Your task to perform on an android device: Turn off the flashlight Image 0: 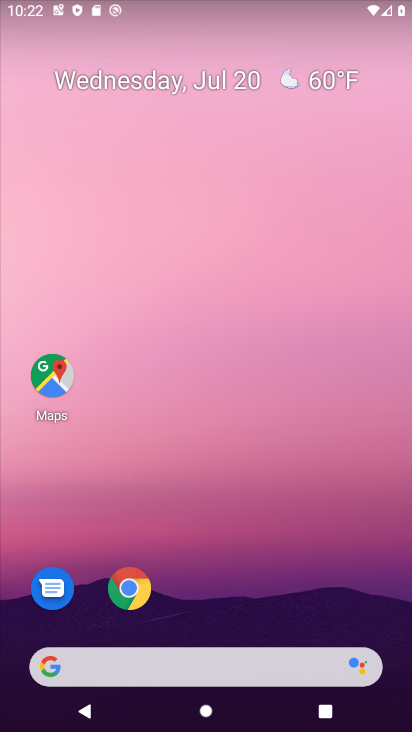
Step 0: drag from (197, 615) to (195, 27)
Your task to perform on an android device: Turn off the flashlight Image 1: 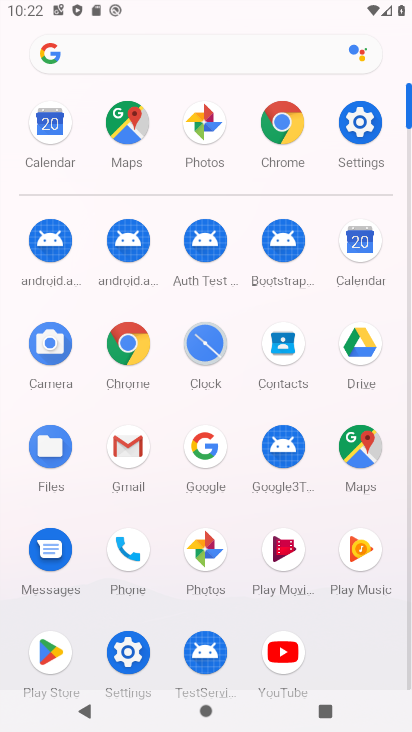
Step 1: click (365, 137)
Your task to perform on an android device: Turn off the flashlight Image 2: 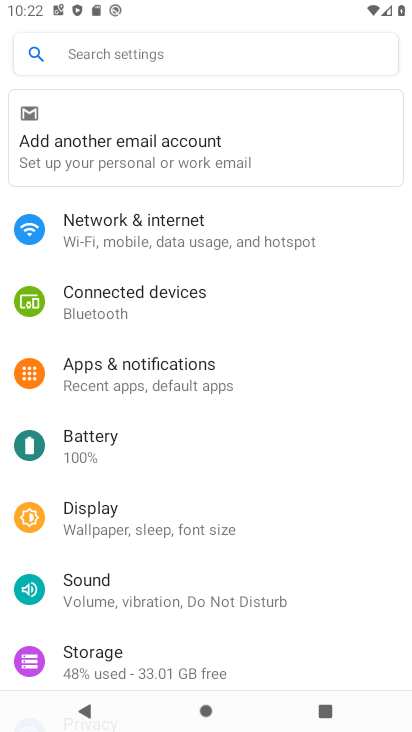
Step 2: click (246, 58)
Your task to perform on an android device: Turn off the flashlight Image 3: 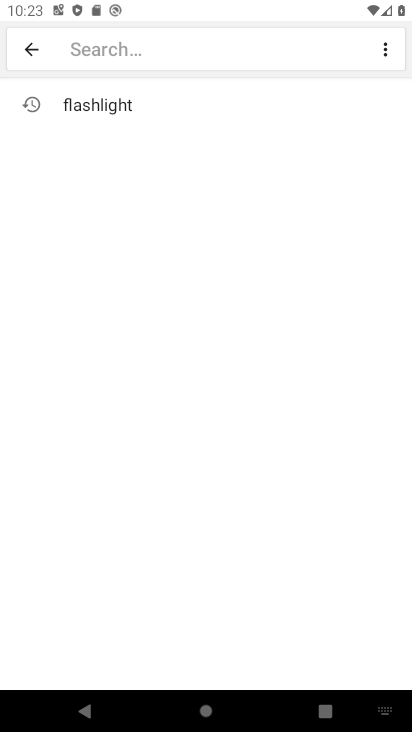
Step 3: type "flashlight"
Your task to perform on an android device: Turn off the flashlight Image 4: 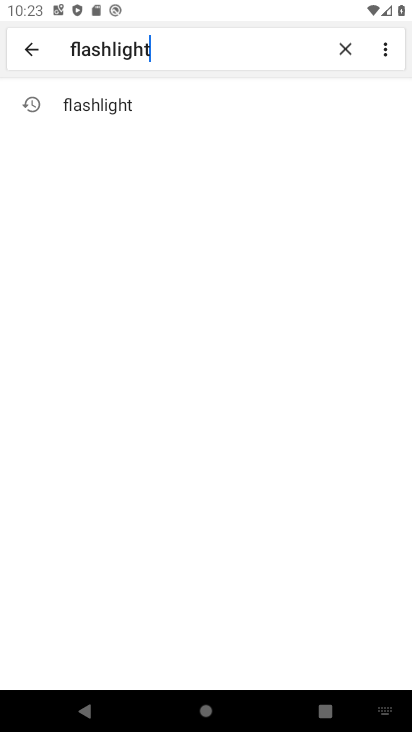
Step 4: click (131, 111)
Your task to perform on an android device: Turn off the flashlight Image 5: 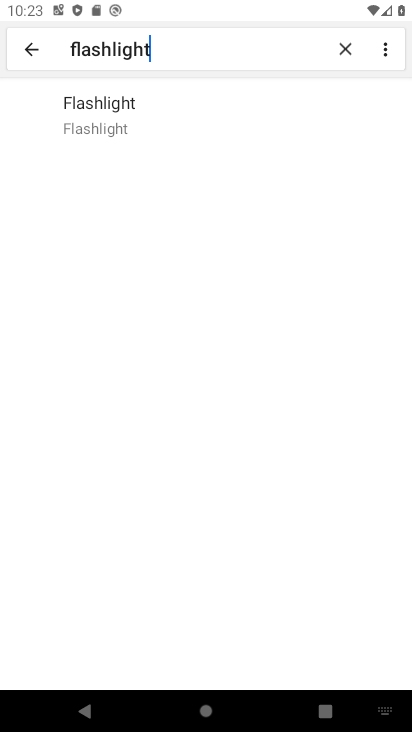
Step 5: click (123, 130)
Your task to perform on an android device: Turn off the flashlight Image 6: 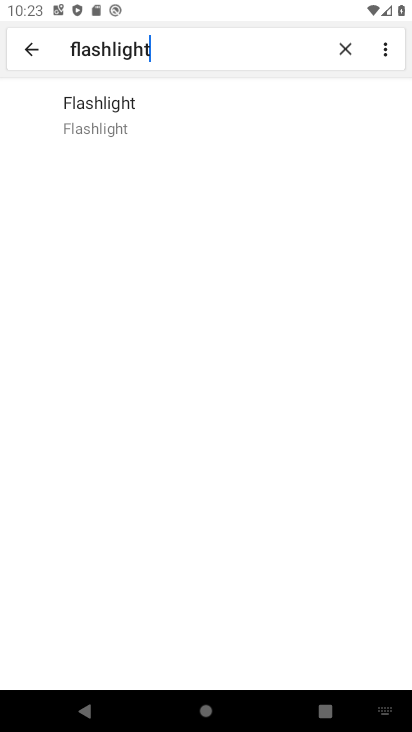
Step 6: click (114, 104)
Your task to perform on an android device: Turn off the flashlight Image 7: 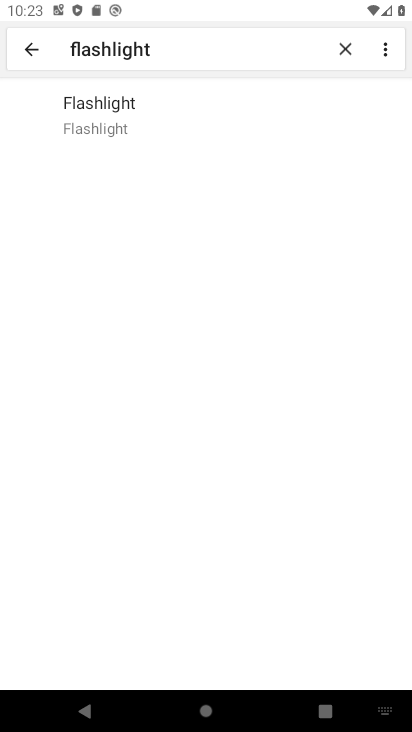
Step 7: task complete